Your task to perform on an android device: Set the phone to "Do not disturb". Image 0: 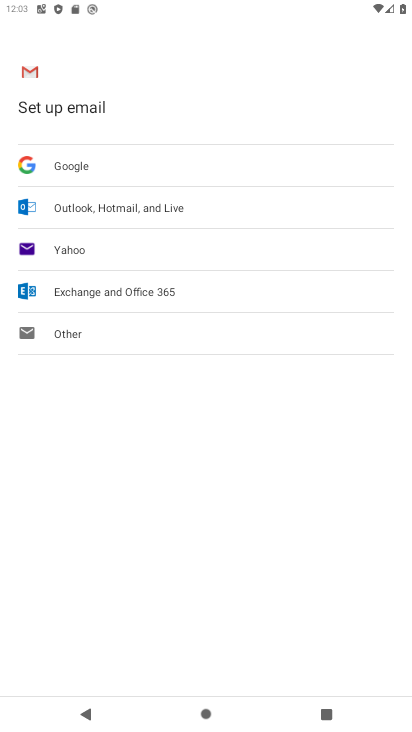
Step 0: press home button
Your task to perform on an android device: Set the phone to "Do not disturb". Image 1: 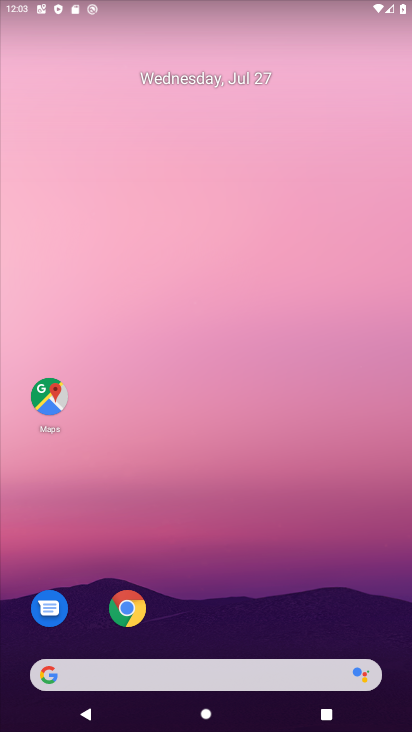
Step 1: drag from (365, 565) to (345, 111)
Your task to perform on an android device: Set the phone to "Do not disturb". Image 2: 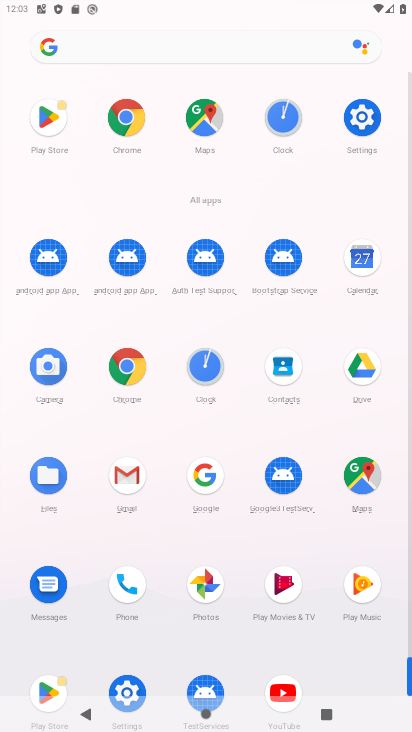
Step 2: click (367, 117)
Your task to perform on an android device: Set the phone to "Do not disturb". Image 3: 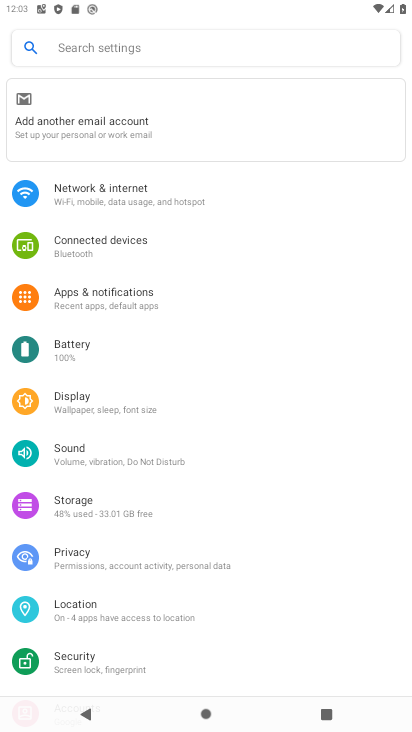
Step 3: drag from (324, 435) to (319, 359)
Your task to perform on an android device: Set the phone to "Do not disturb". Image 4: 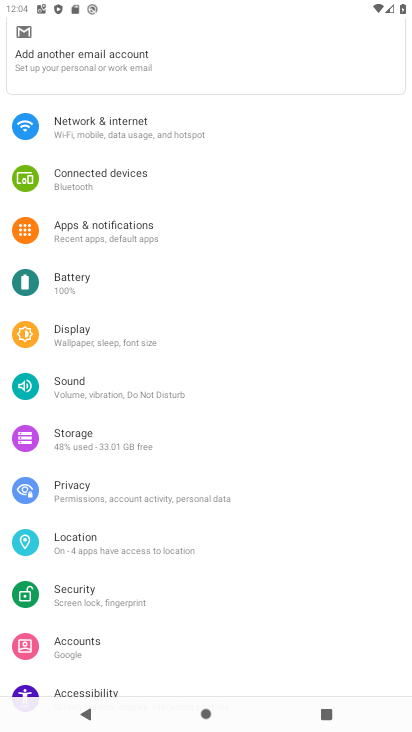
Step 4: drag from (315, 510) to (320, 396)
Your task to perform on an android device: Set the phone to "Do not disturb". Image 5: 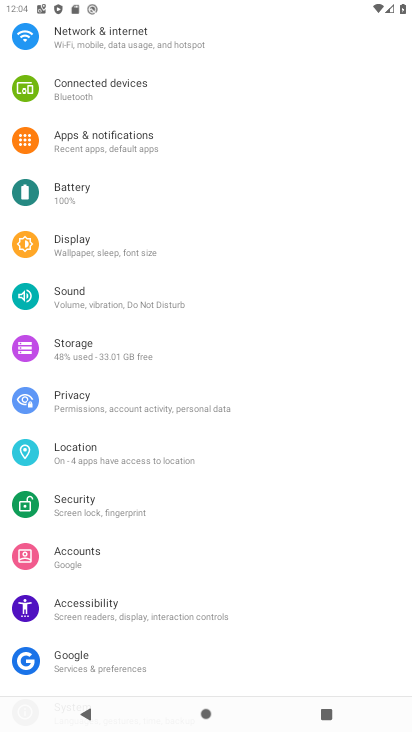
Step 5: drag from (318, 535) to (317, 424)
Your task to perform on an android device: Set the phone to "Do not disturb". Image 6: 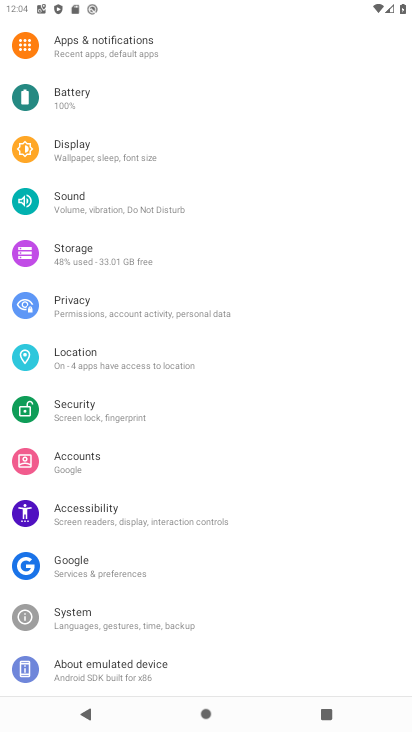
Step 6: drag from (307, 554) to (307, 429)
Your task to perform on an android device: Set the phone to "Do not disturb". Image 7: 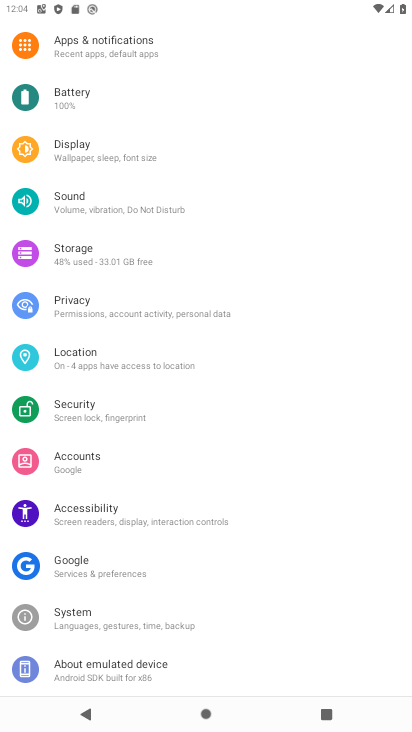
Step 7: drag from (304, 300) to (294, 424)
Your task to perform on an android device: Set the phone to "Do not disturb". Image 8: 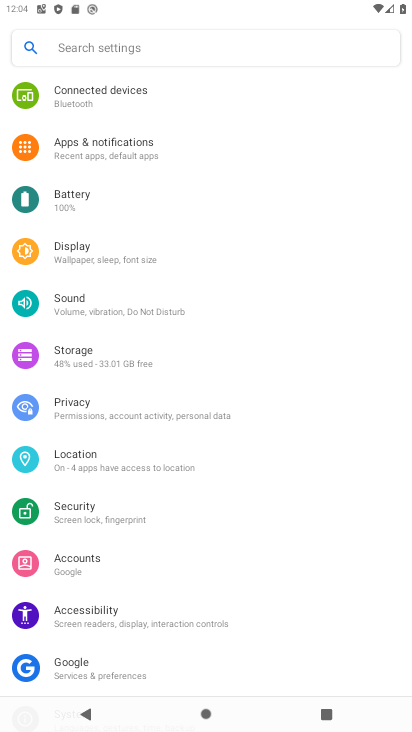
Step 8: drag from (280, 222) to (278, 380)
Your task to perform on an android device: Set the phone to "Do not disturb". Image 9: 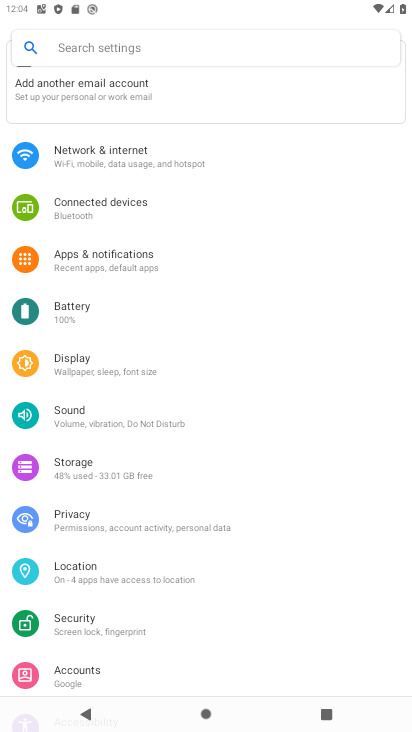
Step 9: drag from (278, 233) to (281, 390)
Your task to perform on an android device: Set the phone to "Do not disturb". Image 10: 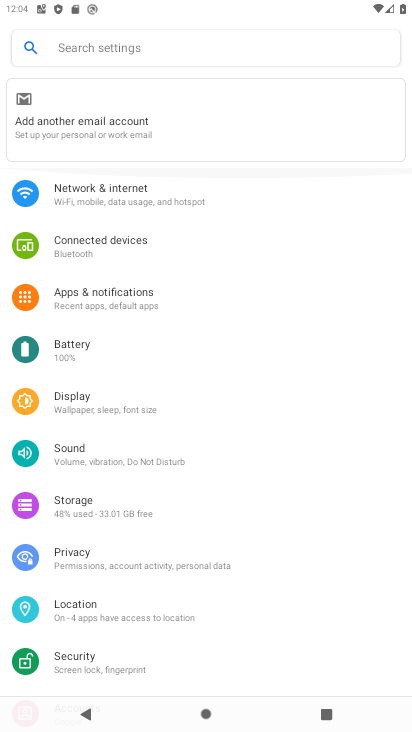
Step 10: click (189, 465)
Your task to perform on an android device: Set the phone to "Do not disturb". Image 11: 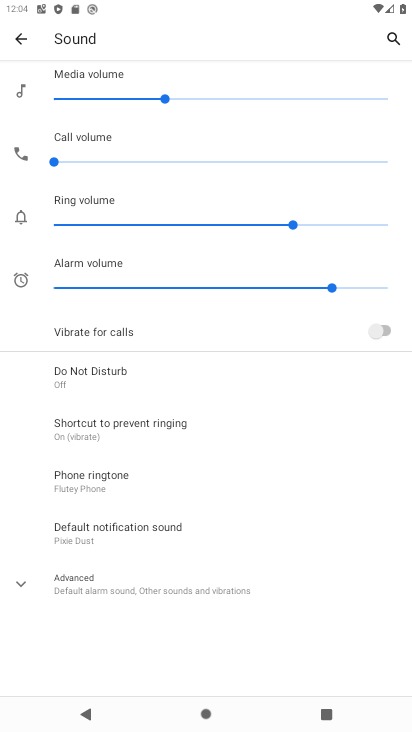
Step 11: click (102, 372)
Your task to perform on an android device: Set the phone to "Do not disturb". Image 12: 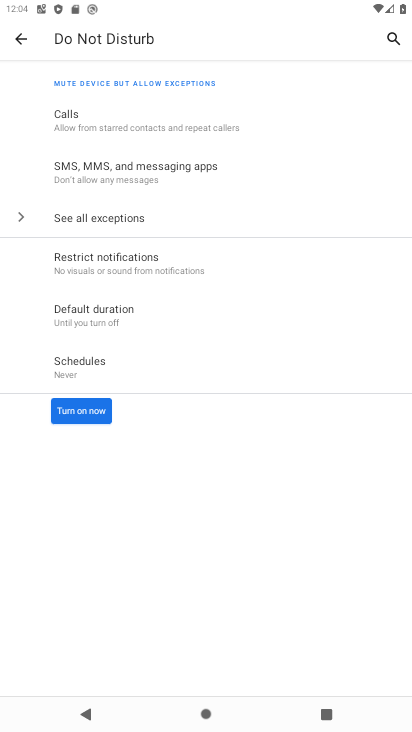
Step 12: click (87, 413)
Your task to perform on an android device: Set the phone to "Do not disturb". Image 13: 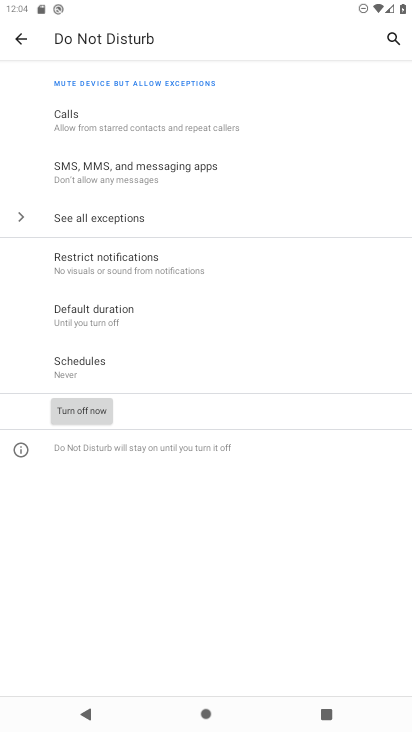
Step 13: task complete